Your task to perform on an android device: Do I have any events tomorrow? Image 0: 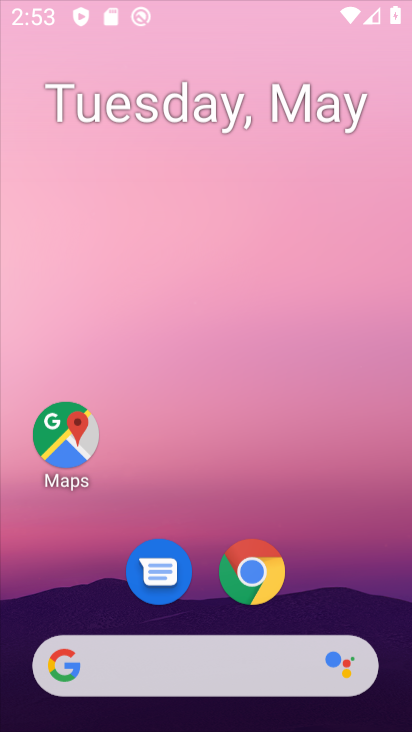
Step 0: click (234, 18)
Your task to perform on an android device: Do I have any events tomorrow? Image 1: 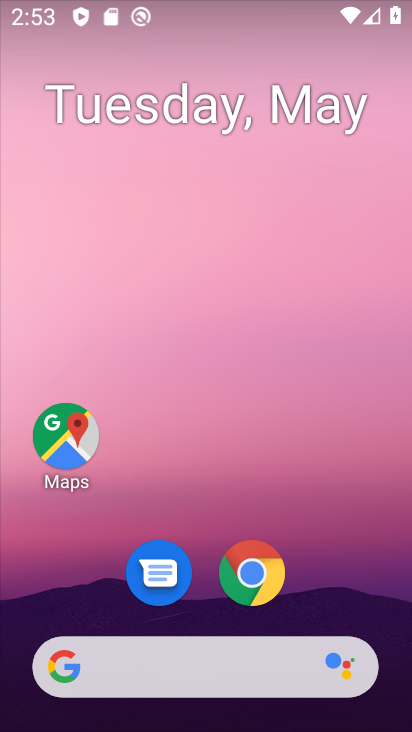
Step 1: drag from (348, 587) to (234, 0)
Your task to perform on an android device: Do I have any events tomorrow? Image 2: 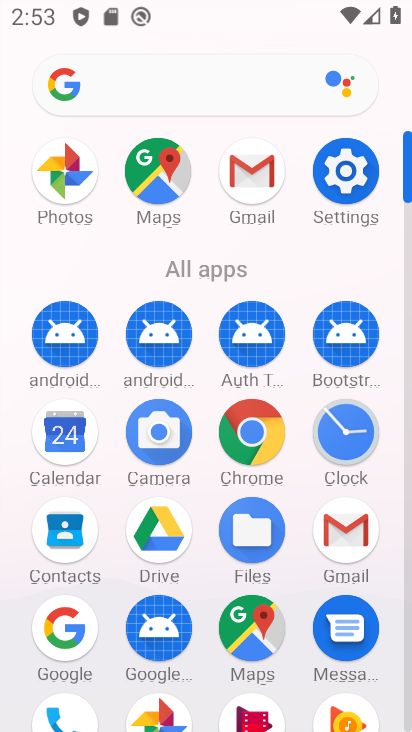
Step 2: click (59, 429)
Your task to perform on an android device: Do I have any events tomorrow? Image 3: 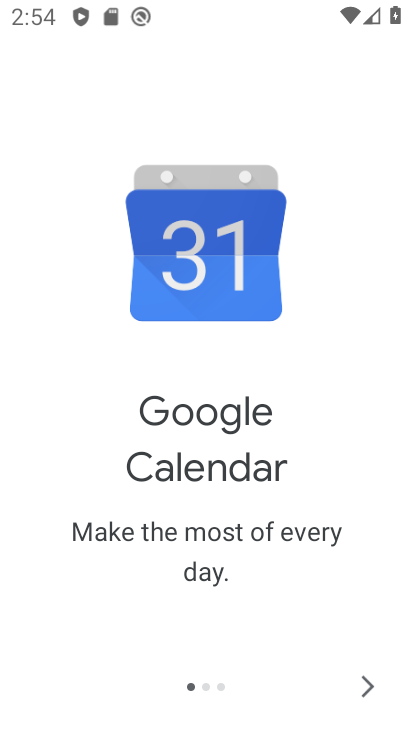
Step 3: click (361, 689)
Your task to perform on an android device: Do I have any events tomorrow? Image 4: 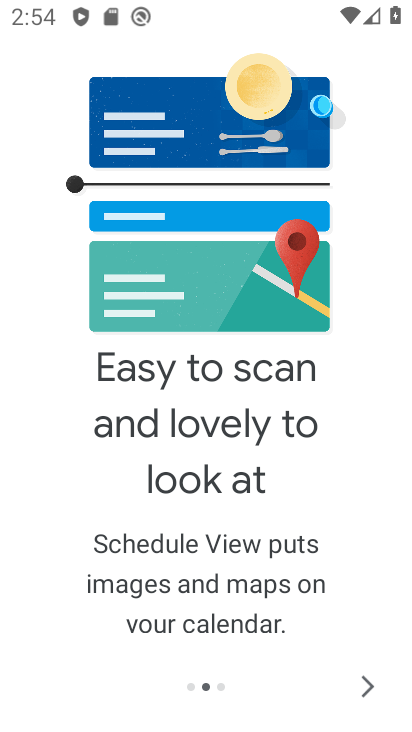
Step 4: click (362, 689)
Your task to perform on an android device: Do I have any events tomorrow? Image 5: 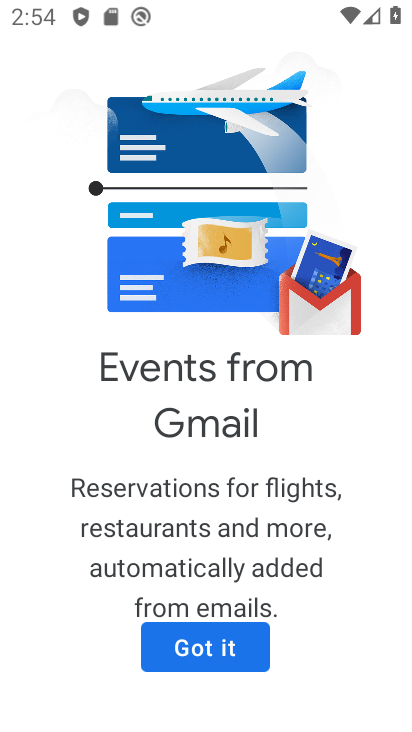
Step 5: click (201, 634)
Your task to perform on an android device: Do I have any events tomorrow? Image 6: 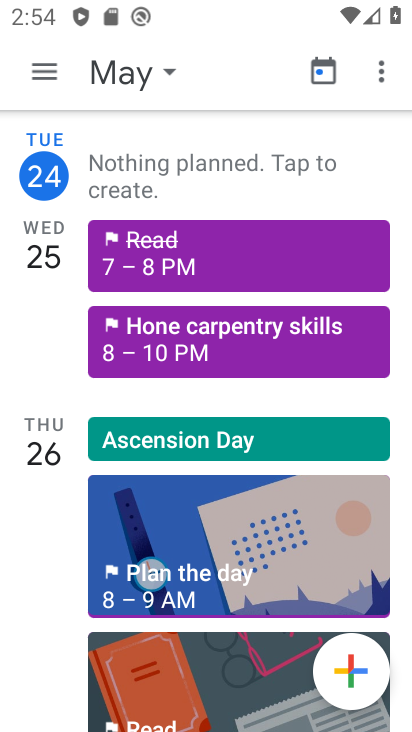
Step 6: click (316, 76)
Your task to perform on an android device: Do I have any events tomorrow? Image 7: 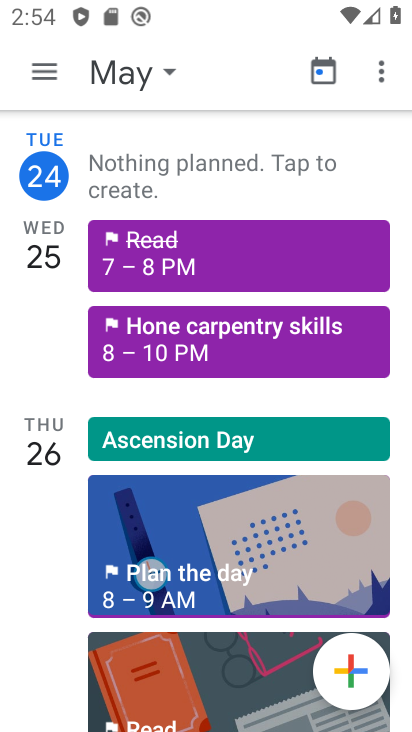
Step 7: drag from (377, 161) to (29, 171)
Your task to perform on an android device: Do I have any events tomorrow? Image 8: 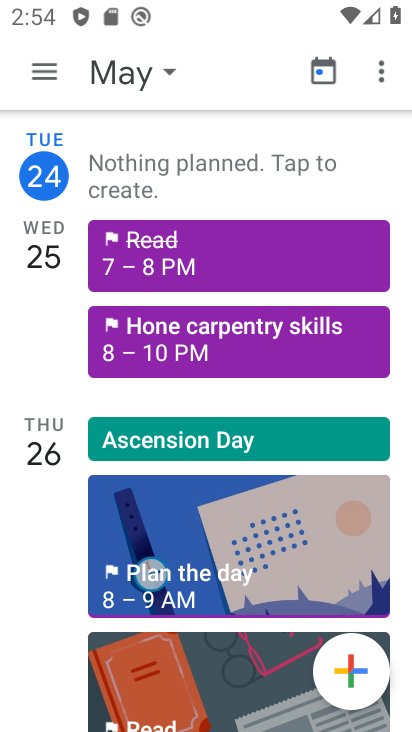
Step 8: click (43, 68)
Your task to perform on an android device: Do I have any events tomorrow? Image 9: 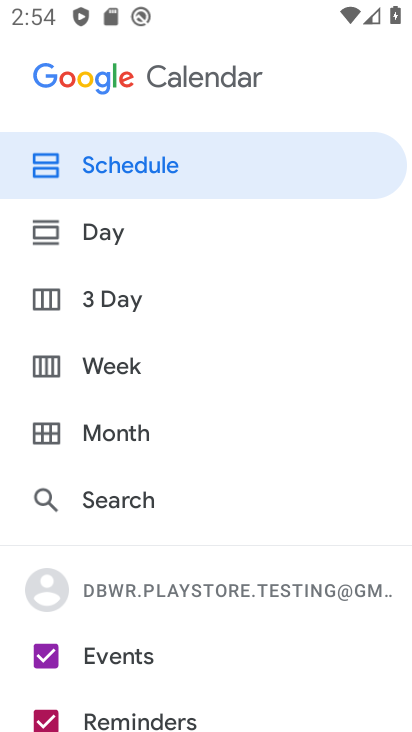
Step 9: click (138, 228)
Your task to perform on an android device: Do I have any events tomorrow? Image 10: 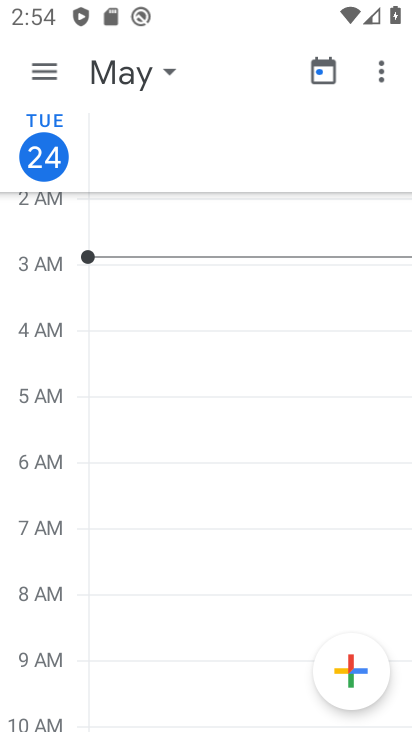
Step 10: task complete